Your task to perform on an android device: remove spam from my inbox in the gmail app Image 0: 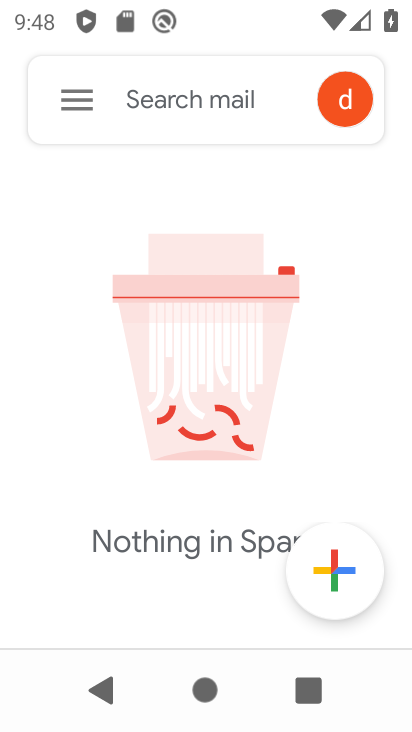
Step 0: click (77, 116)
Your task to perform on an android device: remove spam from my inbox in the gmail app Image 1: 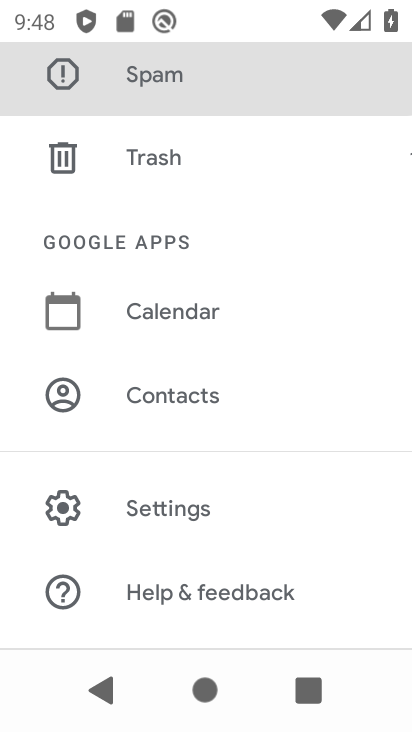
Step 1: click (217, 69)
Your task to perform on an android device: remove spam from my inbox in the gmail app Image 2: 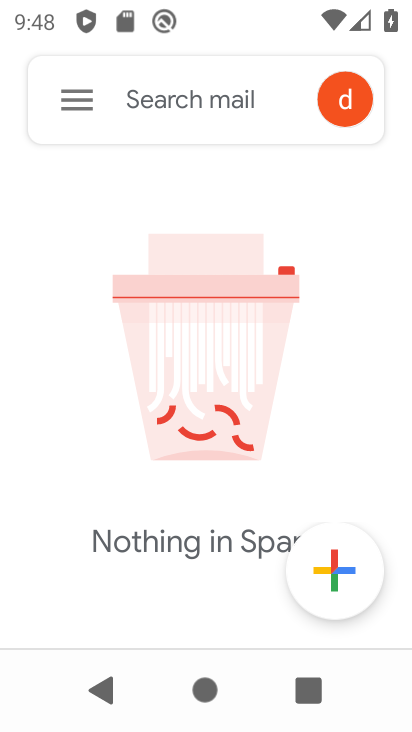
Step 2: task complete